Your task to perform on an android device: Search for top rated pizza restaurants on Maps Image 0: 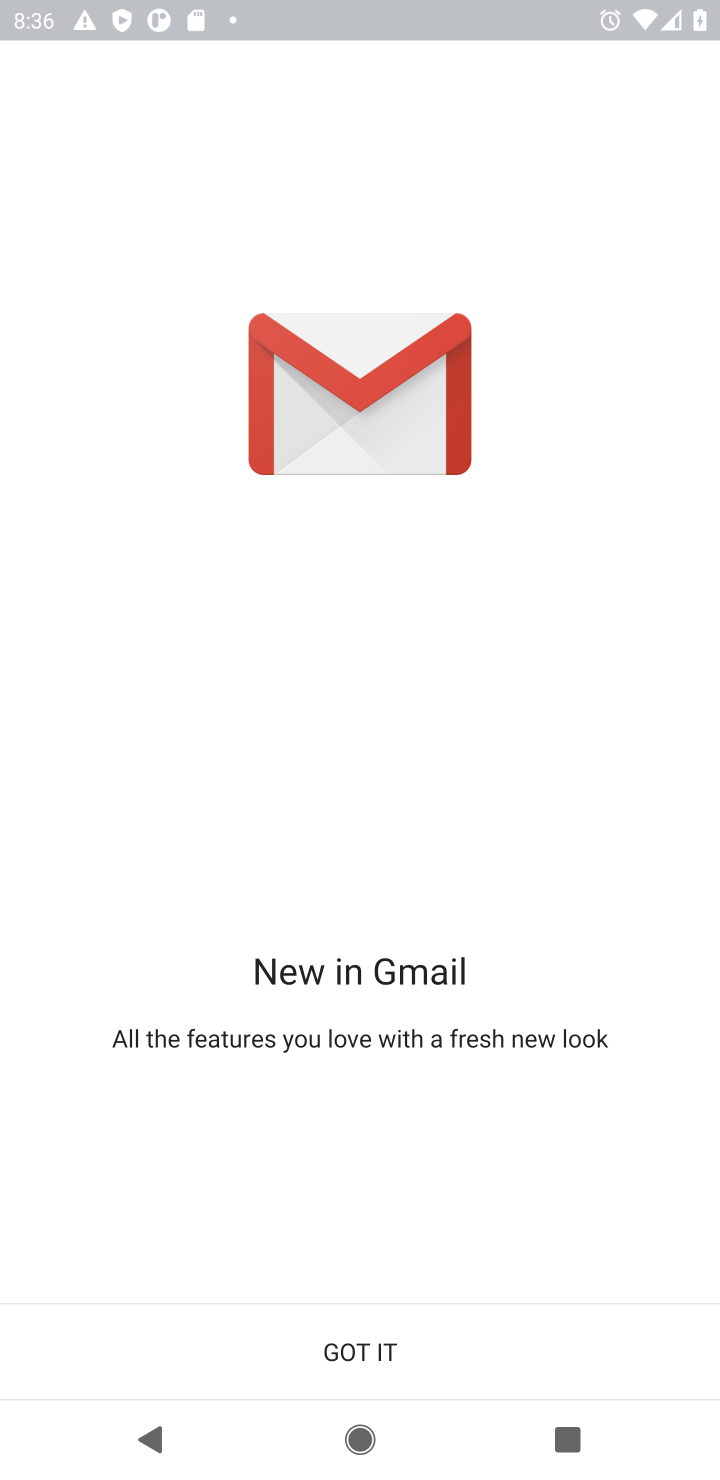
Step 0: press home button
Your task to perform on an android device: Search for top rated pizza restaurants on Maps Image 1: 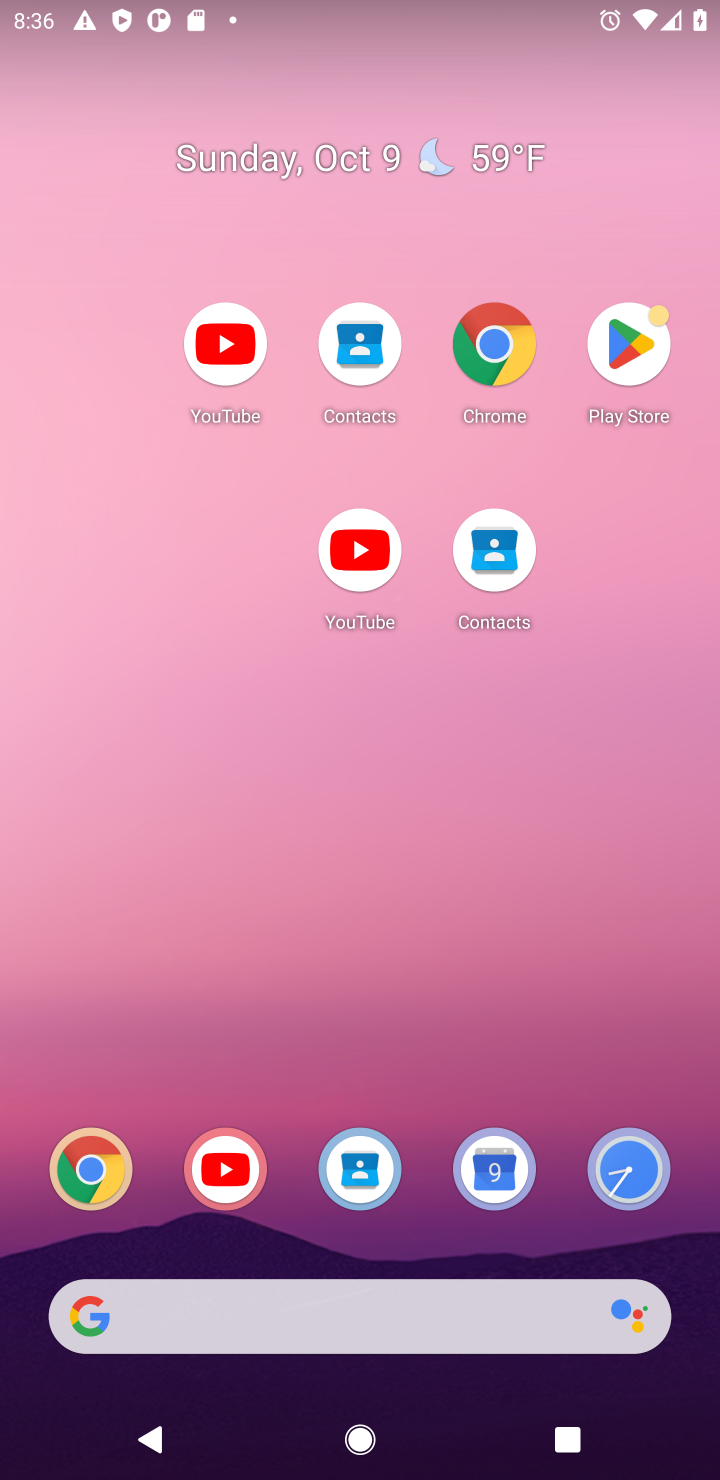
Step 1: drag from (266, 1245) to (125, 184)
Your task to perform on an android device: Search for top rated pizza restaurants on Maps Image 2: 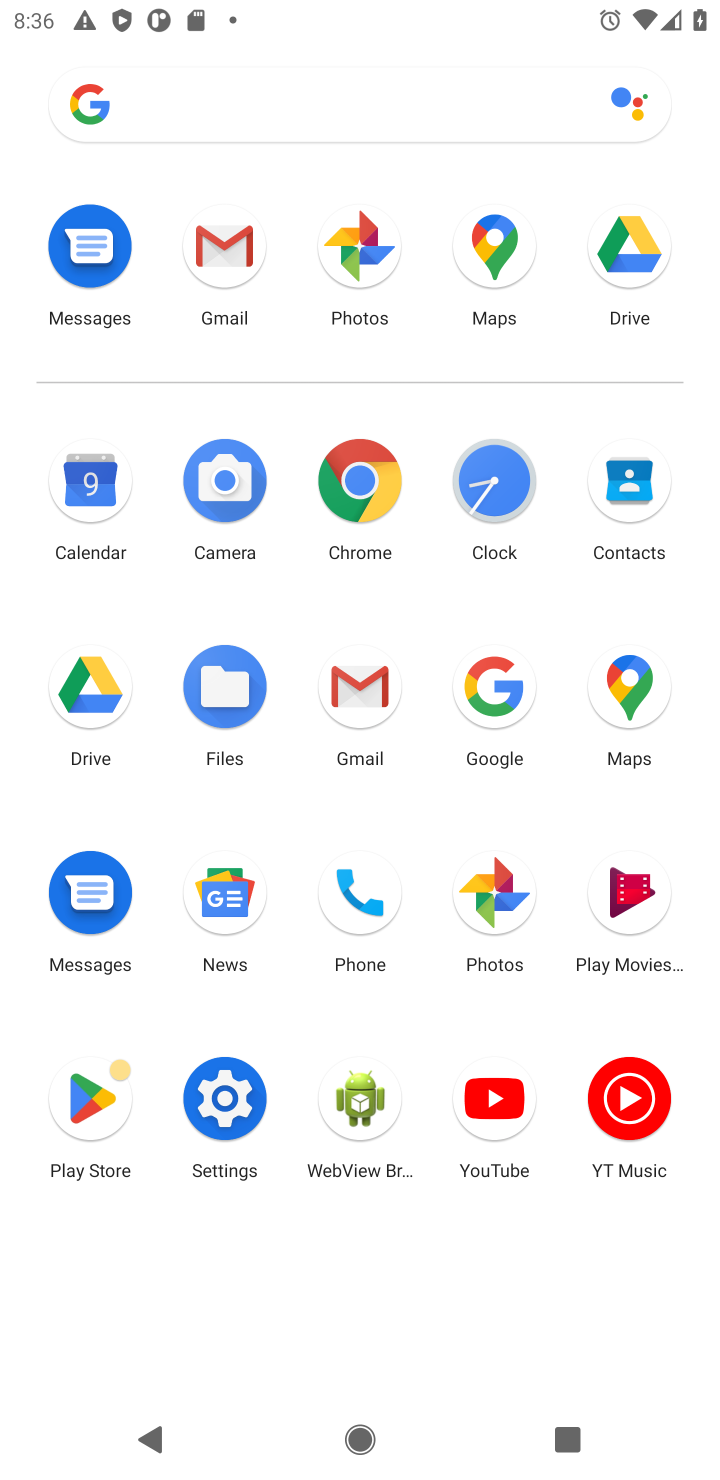
Step 2: click (642, 682)
Your task to perform on an android device: Search for top rated pizza restaurants on Maps Image 3: 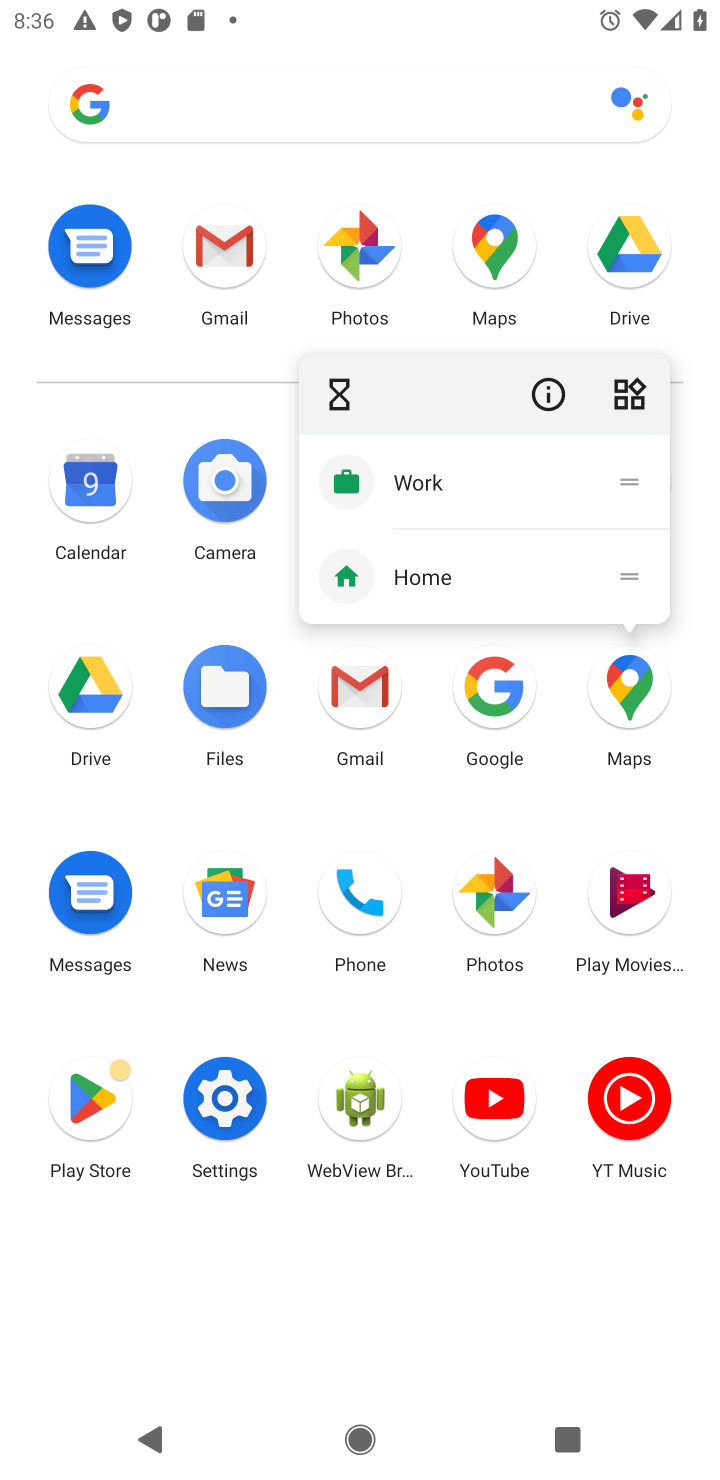
Step 3: click (630, 692)
Your task to perform on an android device: Search for top rated pizza restaurants on Maps Image 4: 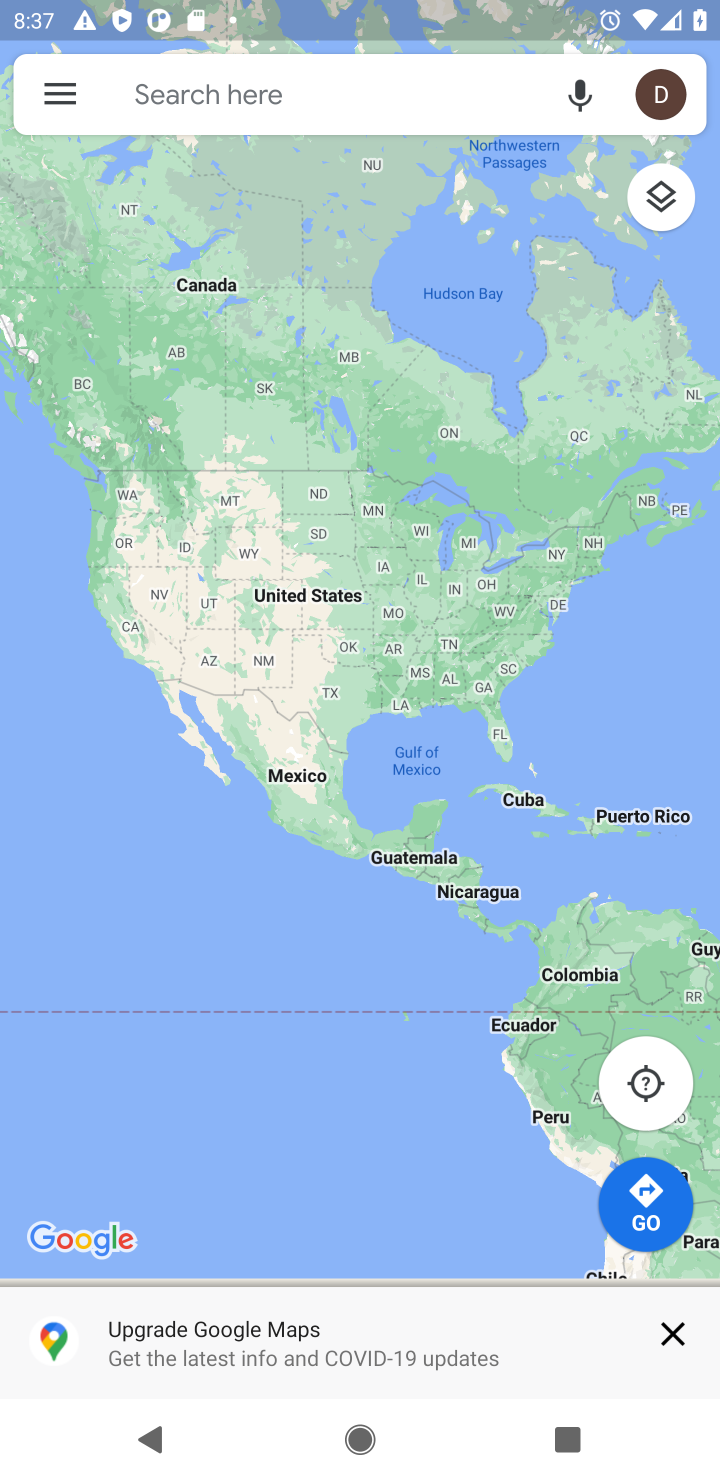
Step 4: click (378, 86)
Your task to perform on an android device: Search for top rated pizza restaurants on Maps Image 5: 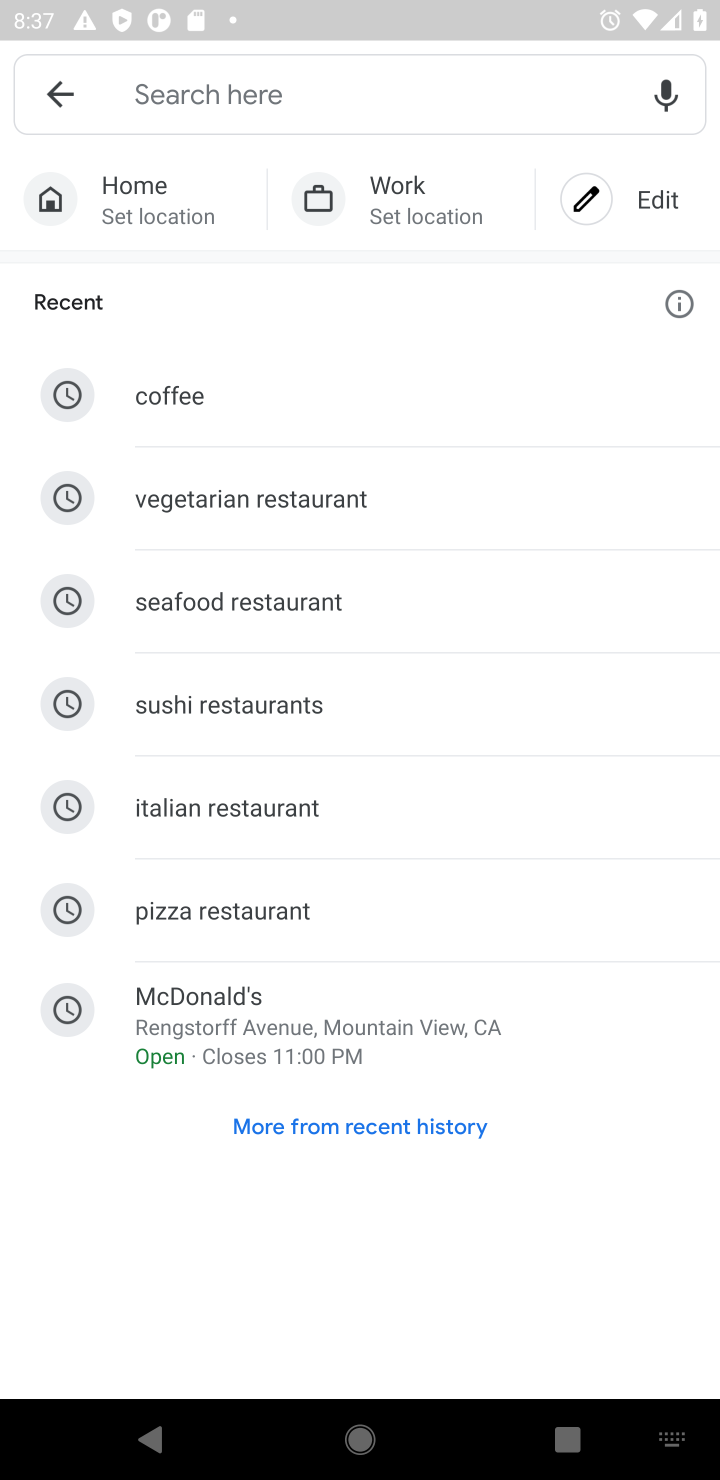
Step 5: type "pizza restaurants"
Your task to perform on an android device: Search for top rated pizza restaurants on Maps Image 6: 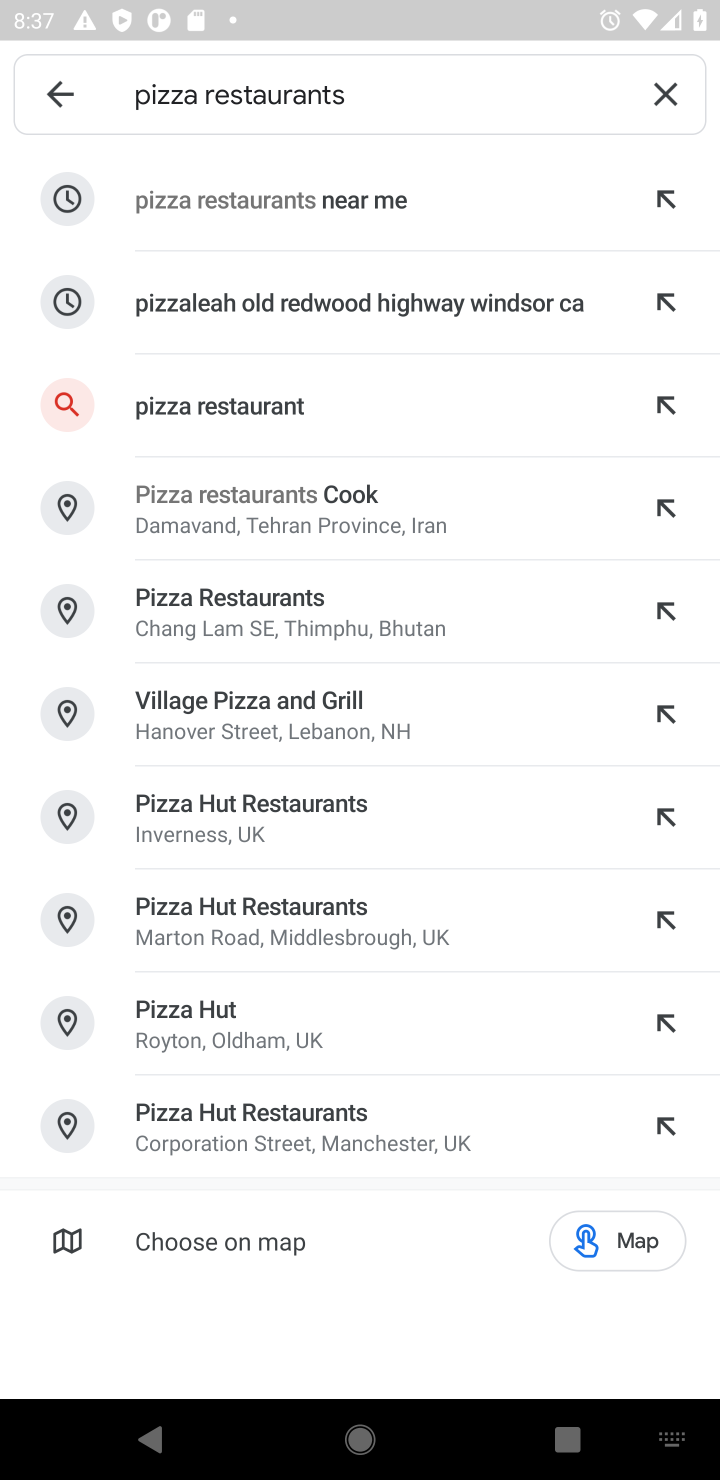
Step 6: press enter
Your task to perform on an android device: Search for top rated pizza restaurants on Maps Image 7: 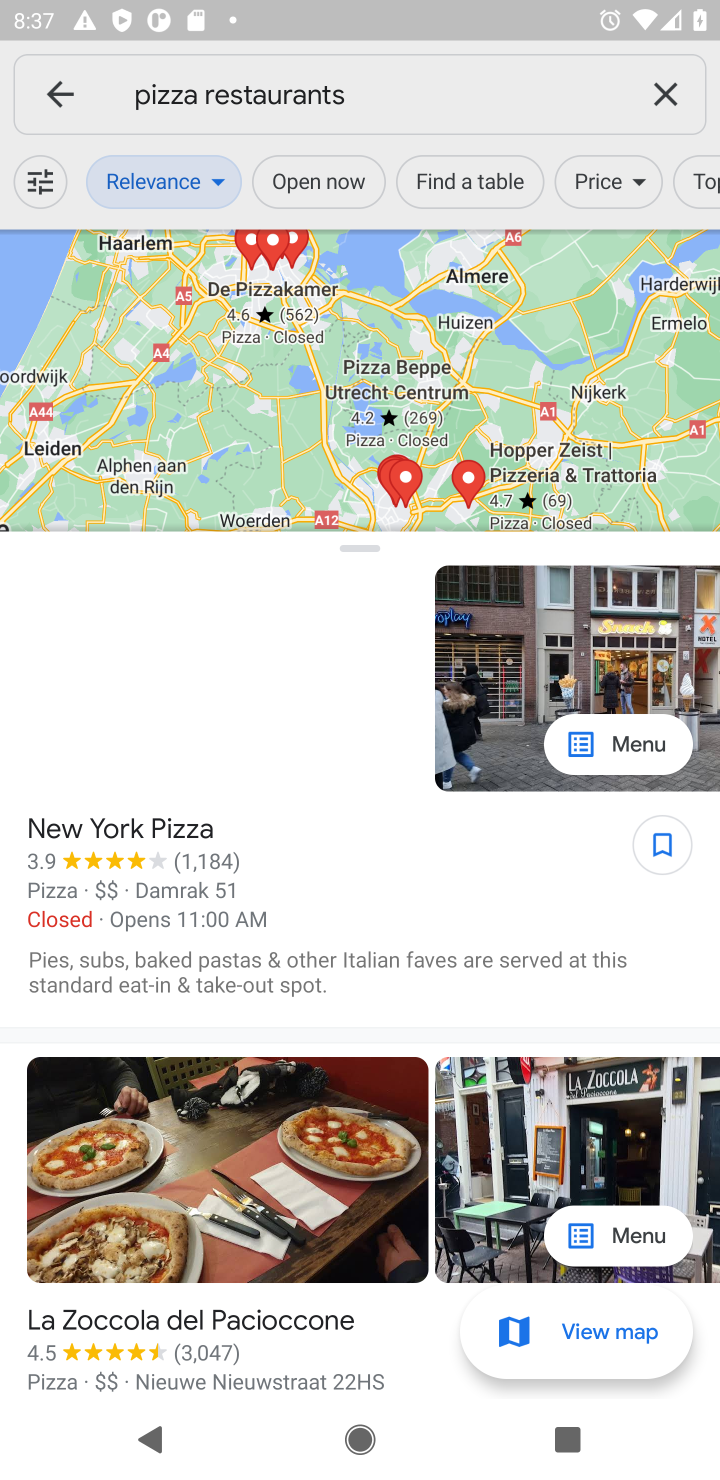
Step 7: task complete